Your task to perform on an android device: turn off javascript in the chrome app Image 0: 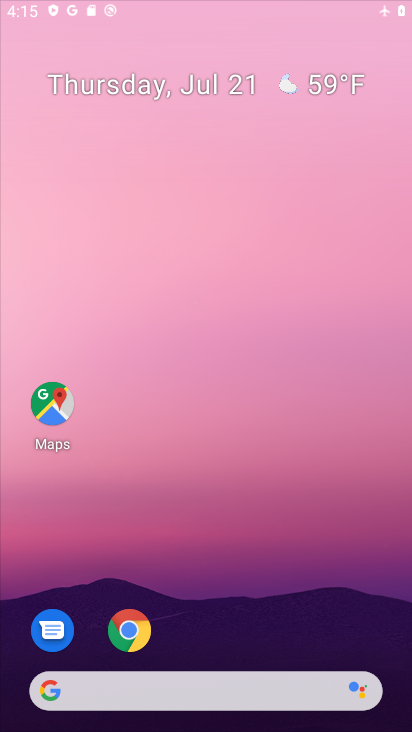
Step 0: drag from (260, 660) to (224, 264)
Your task to perform on an android device: turn off javascript in the chrome app Image 1: 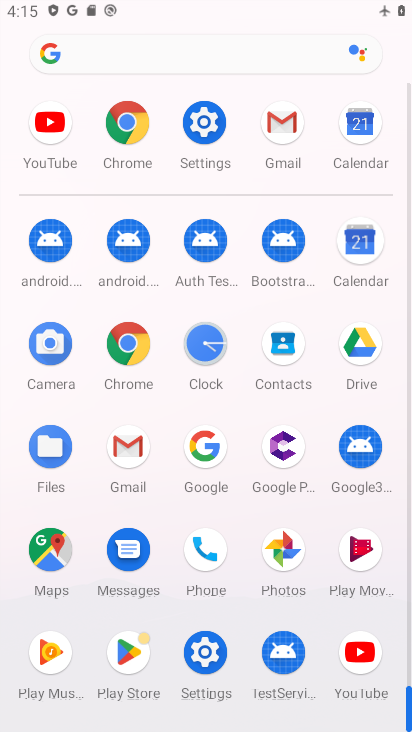
Step 1: click (198, 129)
Your task to perform on an android device: turn off javascript in the chrome app Image 2: 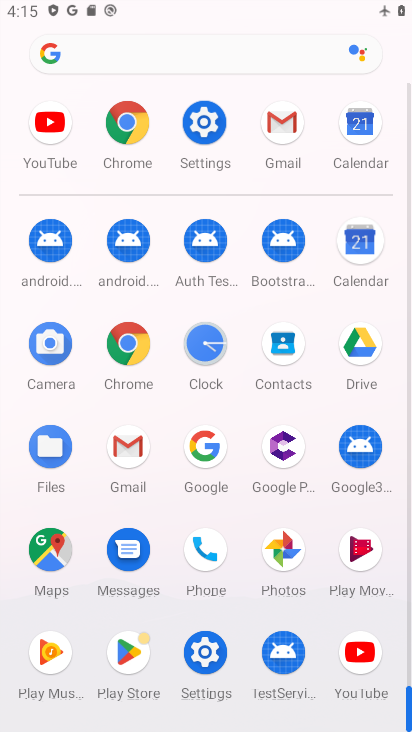
Step 2: click (204, 124)
Your task to perform on an android device: turn off javascript in the chrome app Image 3: 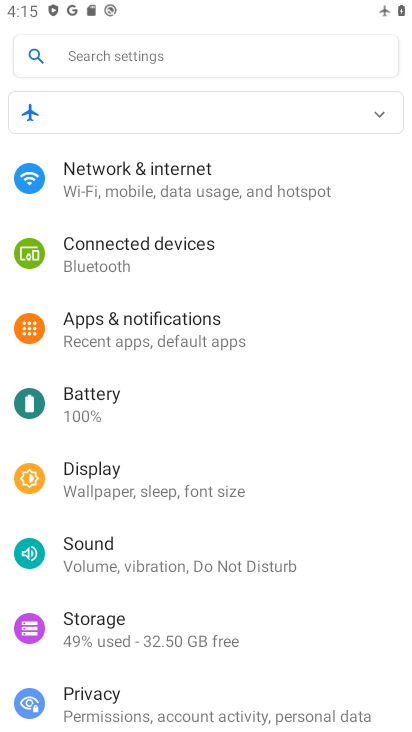
Step 3: click (173, 187)
Your task to perform on an android device: turn off javascript in the chrome app Image 4: 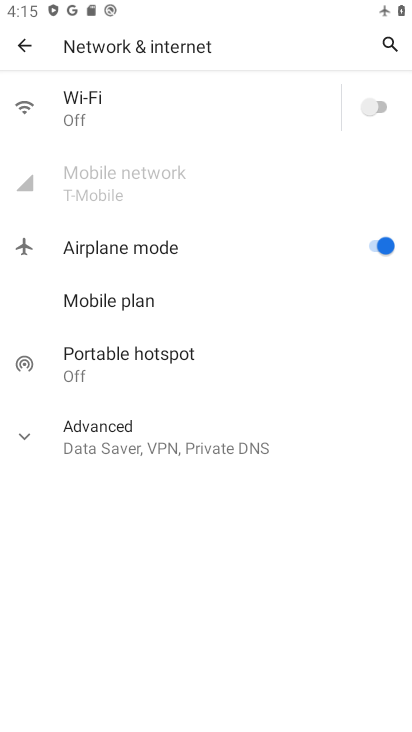
Step 4: click (365, 113)
Your task to perform on an android device: turn off javascript in the chrome app Image 5: 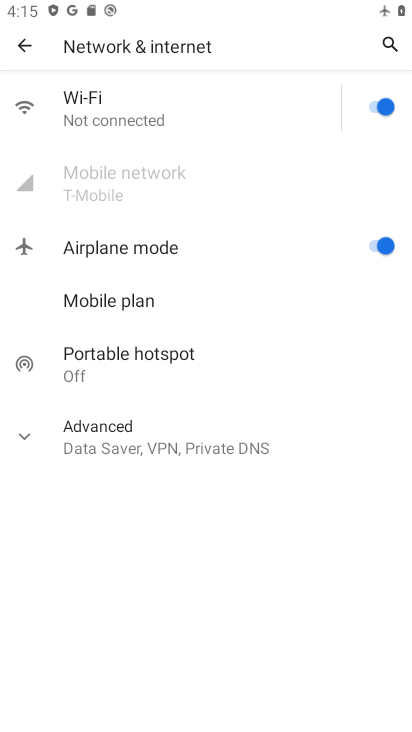
Step 5: click (390, 239)
Your task to perform on an android device: turn off javascript in the chrome app Image 6: 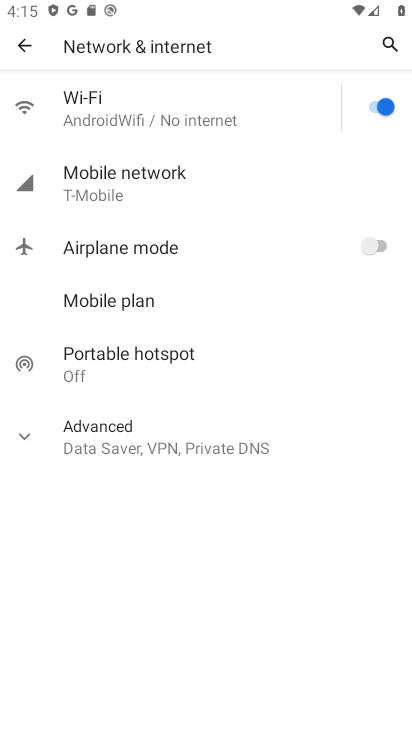
Step 6: click (26, 42)
Your task to perform on an android device: turn off javascript in the chrome app Image 7: 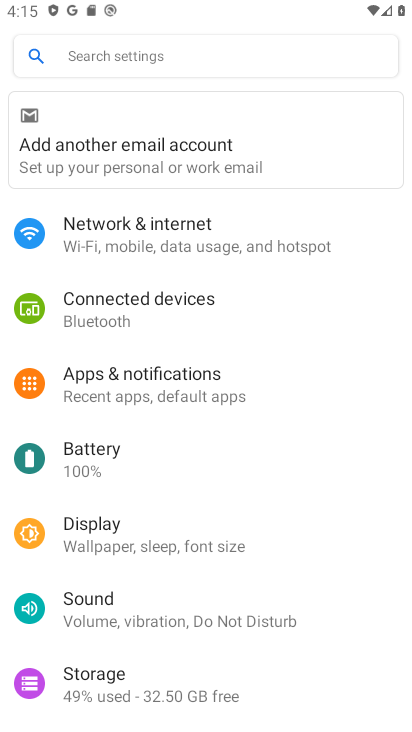
Step 7: press back button
Your task to perform on an android device: turn off javascript in the chrome app Image 8: 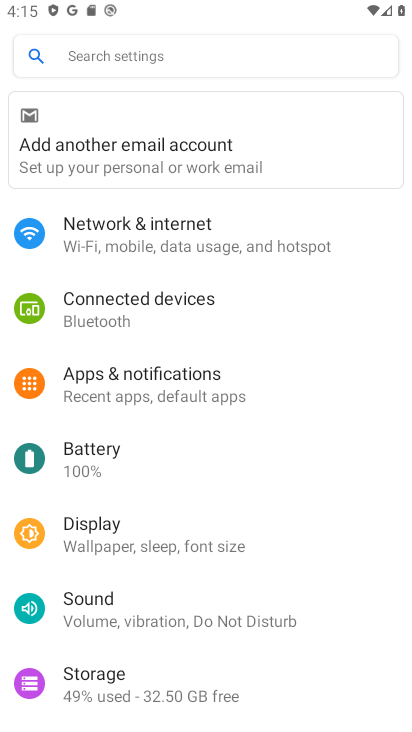
Step 8: press back button
Your task to perform on an android device: turn off javascript in the chrome app Image 9: 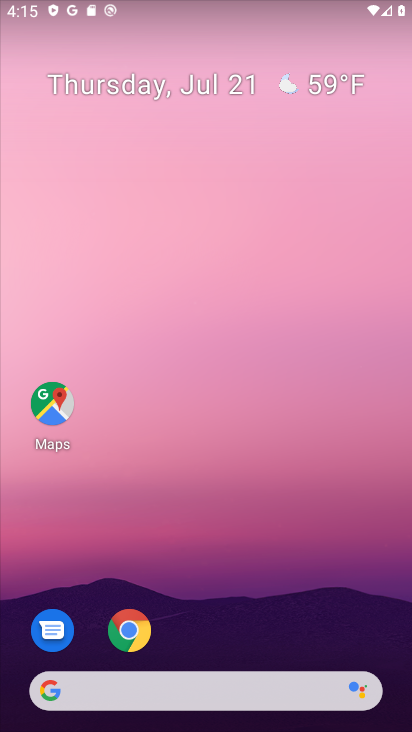
Step 9: drag from (254, 655) to (185, 138)
Your task to perform on an android device: turn off javascript in the chrome app Image 10: 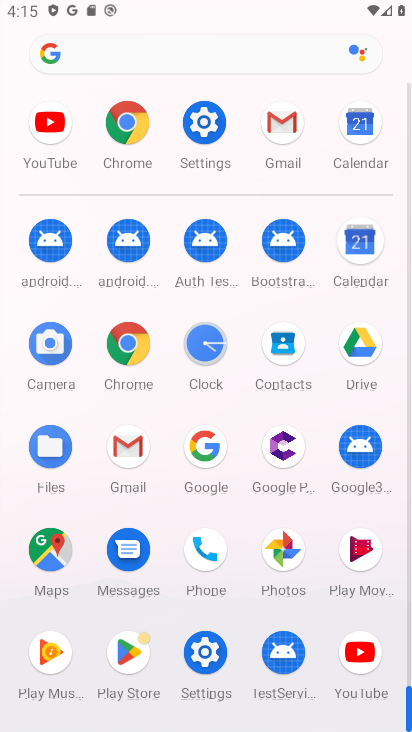
Step 10: click (124, 123)
Your task to perform on an android device: turn off javascript in the chrome app Image 11: 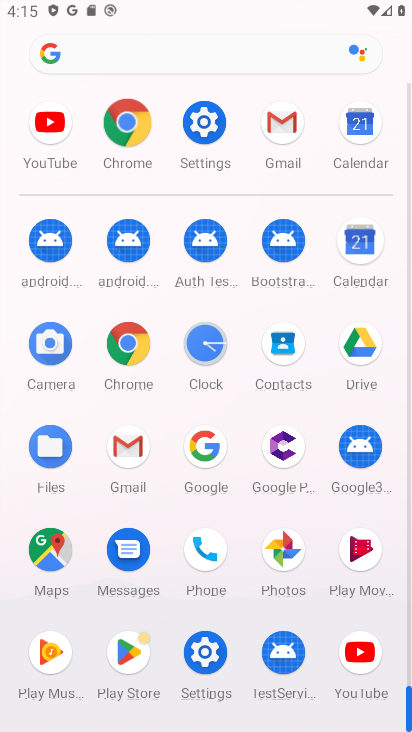
Step 11: click (126, 125)
Your task to perform on an android device: turn off javascript in the chrome app Image 12: 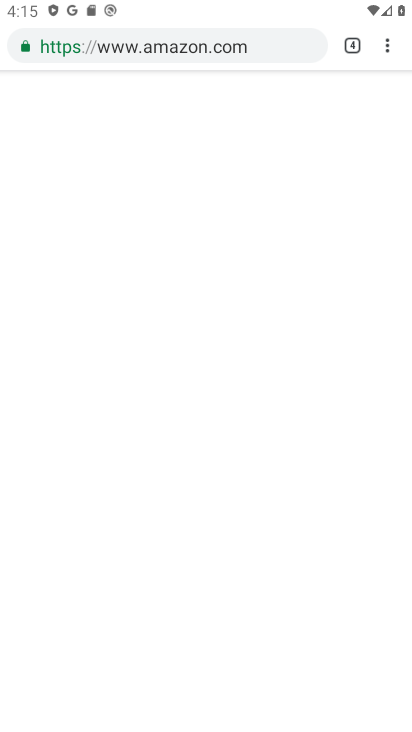
Step 12: click (378, 46)
Your task to perform on an android device: turn off javascript in the chrome app Image 13: 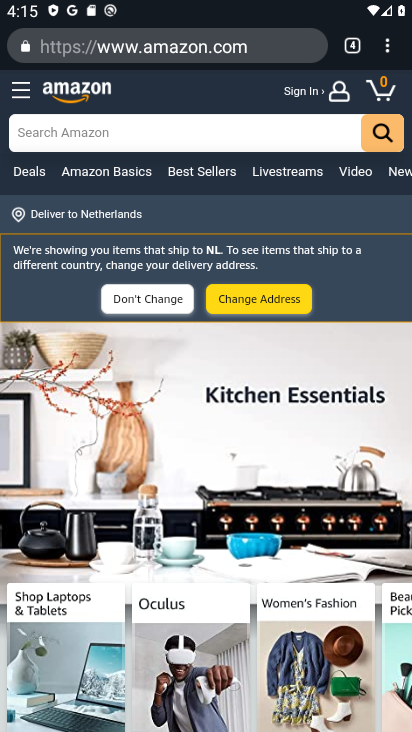
Step 13: click (380, 49)
Your task to perform on an android device: turn off javascript in the chrome app Image 14: 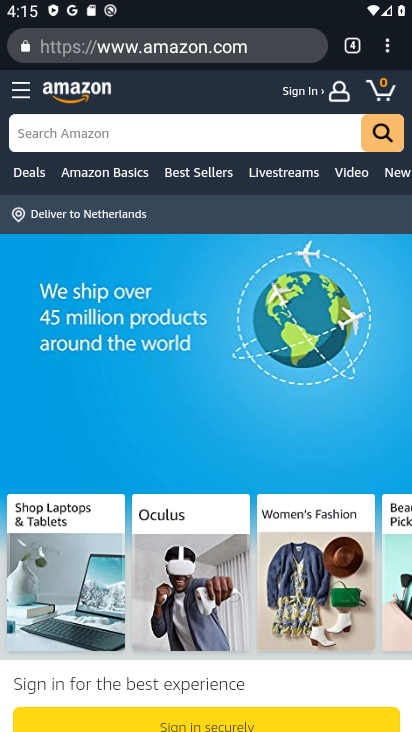
Step 14: drag from (384, 47) to (233, 540)
Your task to perform on an android device: turn off javascript in the chrome app Image 15: 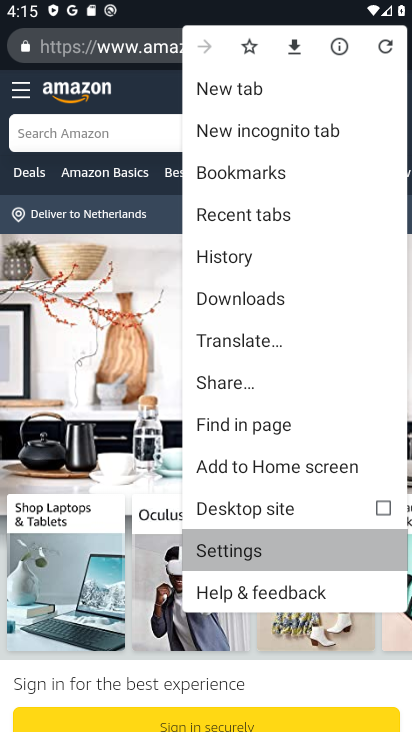
Step 15: click (250, 547)
Your task to perform on an android device: turn off javascript in the chrome app Image 16: 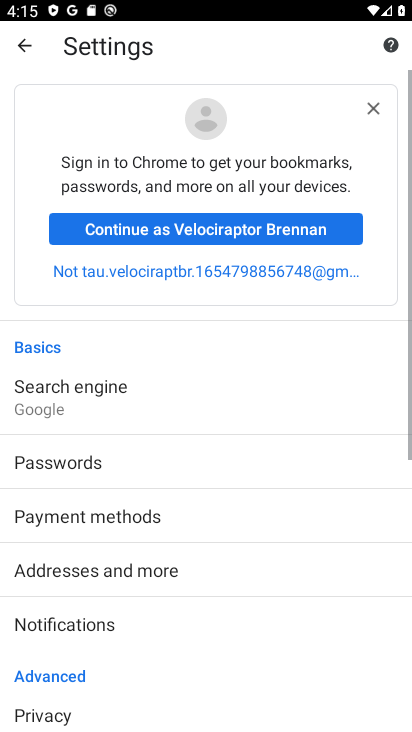
Step 16: drag from (73, 569) to (119, 162)
Your task to perform on an android device: turn off javascript in the chrome app Image 17: 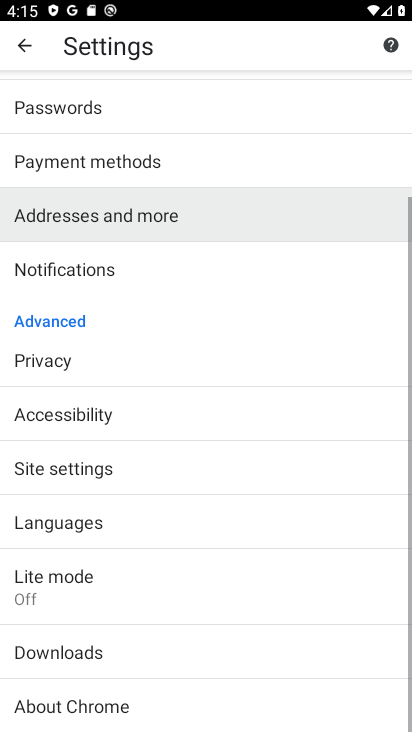
Step 17: drag from (181, 493) to (181, 148)
Your task to perform on an android device: turn off javascript in the chrome app Image 18: 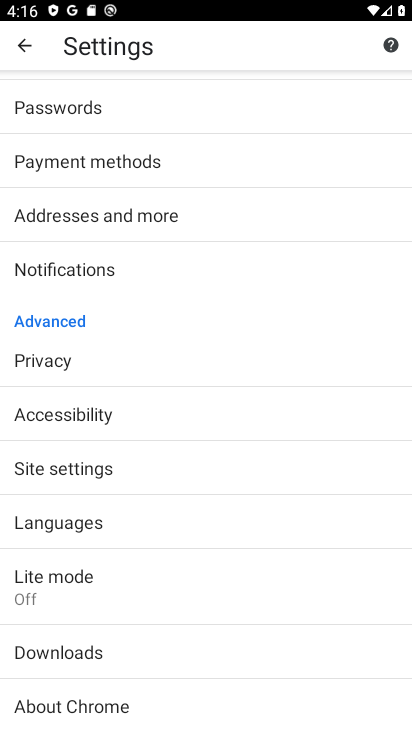
Step 18: click (75, 463)
Your task to perform on an android device: turn off javascript in the chrome app Image 19: 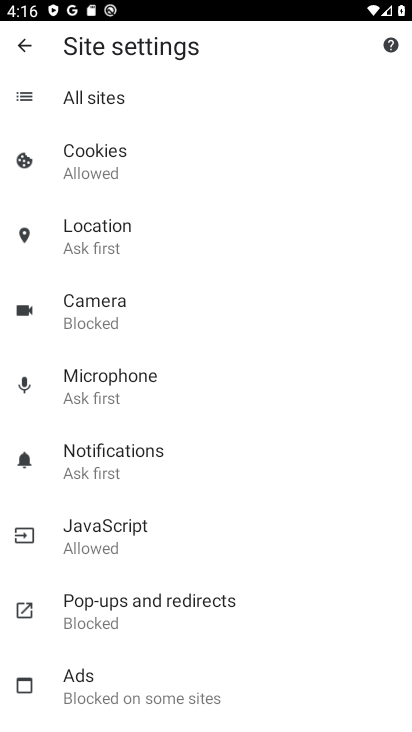
Step 19: click (91, 525)
Your task to perform on an android device: turn off javascript in the chrome app Image 20: 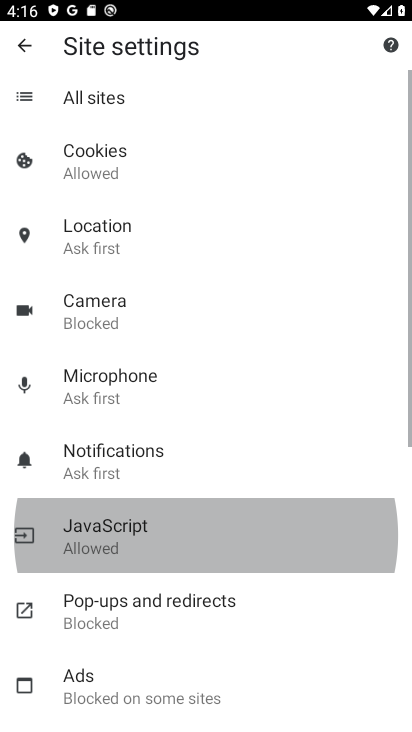
Step 20: click (100, 531)
Your task to perform on an android device: turn off javascript in the chrome app Image 21: 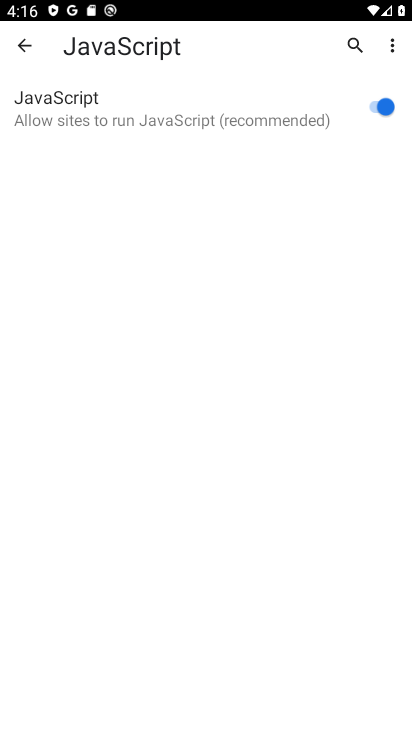
Step 21: click (379, 90)
Your task to perform on an android device: turn off javascript in the chrome app Image 22: 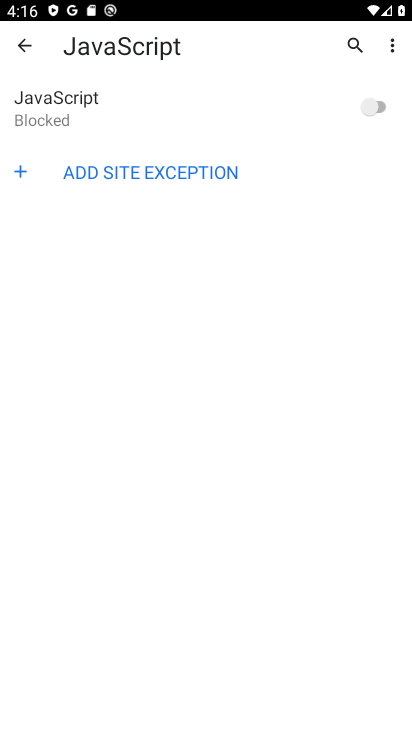
Step 22: task complete